Your task to perform on an android device: Search for pizza restaurants on Maps Image 0: 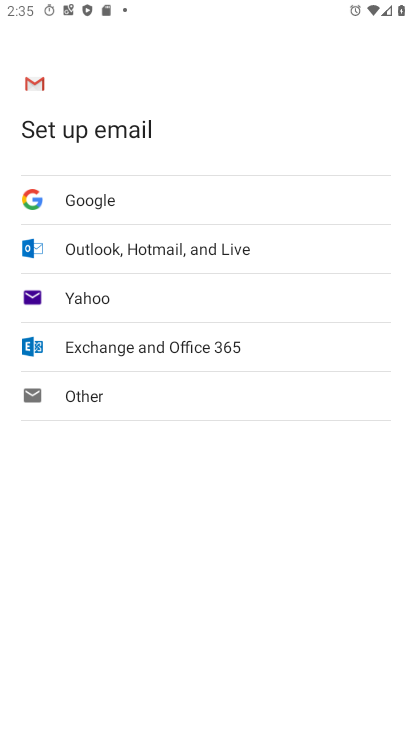
Step 0: press home button
Your task to perform on an android device: Search for pizza restaurants on Maps Image 1: 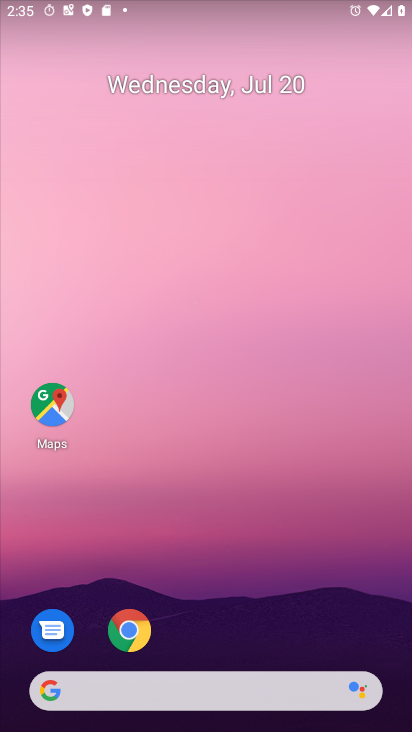
Step 1: click (58, 404)
Your task to perform on an android device: Search for pizza restaurants on Maps Image 2: 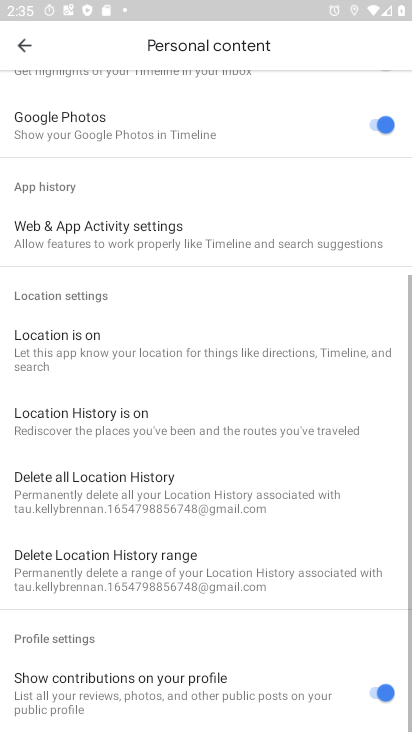
Step 2: click (26, 38)
Your task to perform on an android device: Search for pizza restaurants on Maps Image 3: 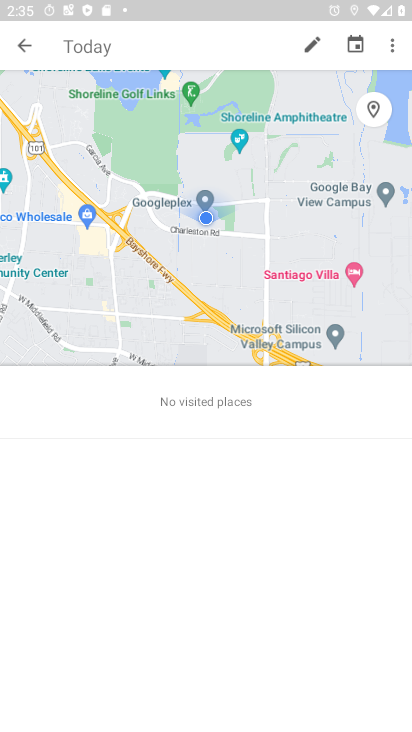
Step 3: click (26, 38)
Your task to perform on an android device: Search for pizza restaurants on Maps Image 4: 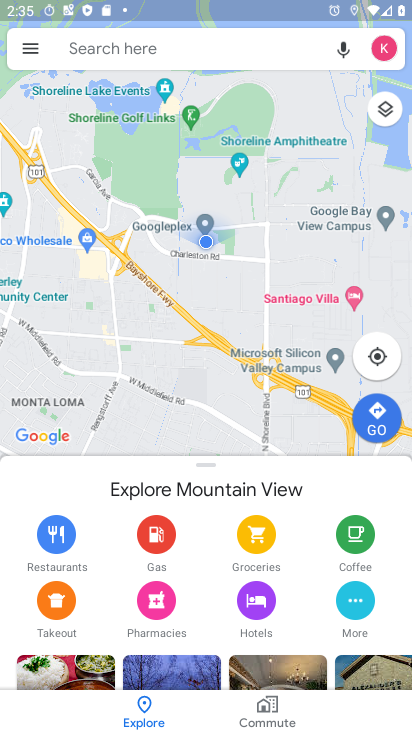
Step 4: click (170, 53)
Your task to perform on an android device: Search for pizza restaurants on Maps Image 5: 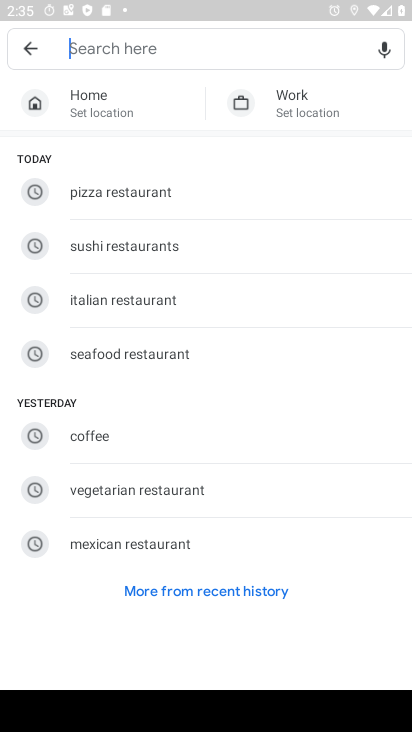
Step 5: click (153, 191)
Your task to perform on an android device: Search for pizza restaurants on Maps Image 6: 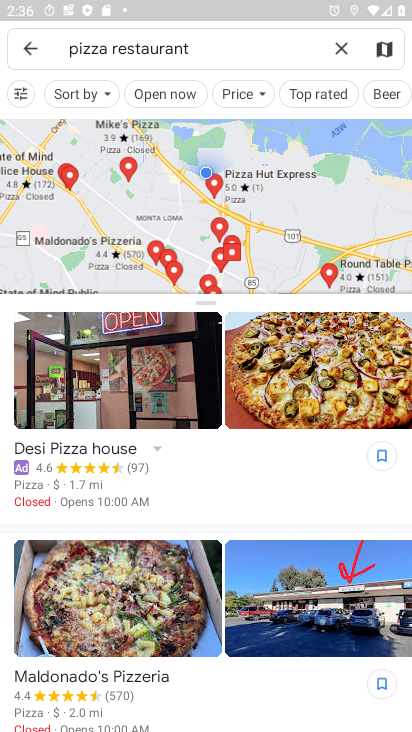
Step 6: task complete